Your task to perform on an android device: Look up the best rated book on Goodreads Image 0: 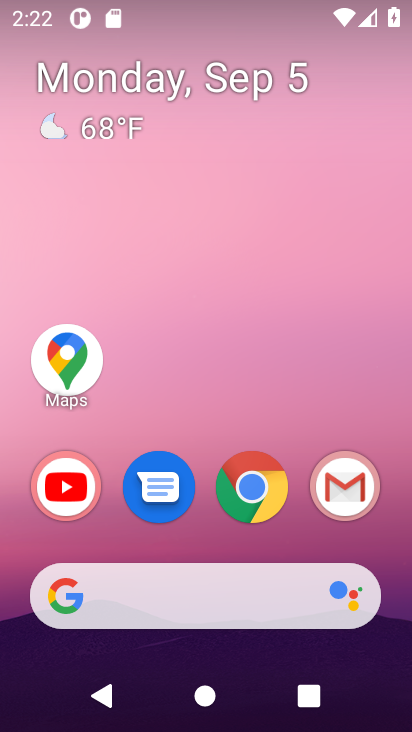
Step 0: click (240, 472)
Your task to perform on an android device: Look up the best rated book on Goodreads Image 1: 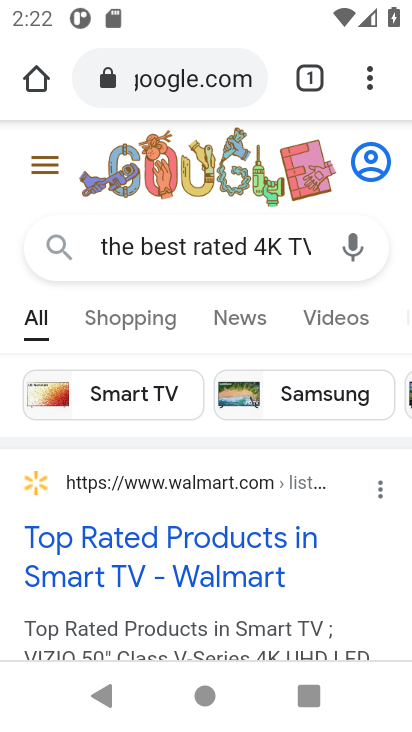
Step 1: click (142, 80)
Your task to perform on an android device: Look up the best rated book on Goodreads Image 2: 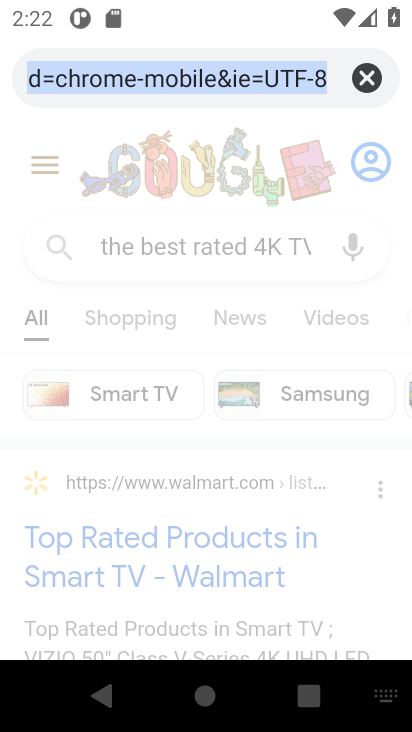
Step 2: click (374, 81)
Your task to perform on an android device: Look up the best rated book on Goodreads Image 3: 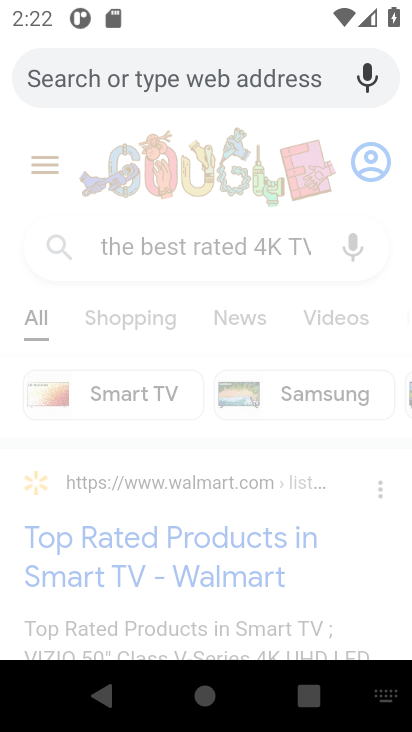
Step 3: type "the best rated book on Goodreads"
Your task to perform on an android device: Look up the best rated book on Goodreads Image 4: 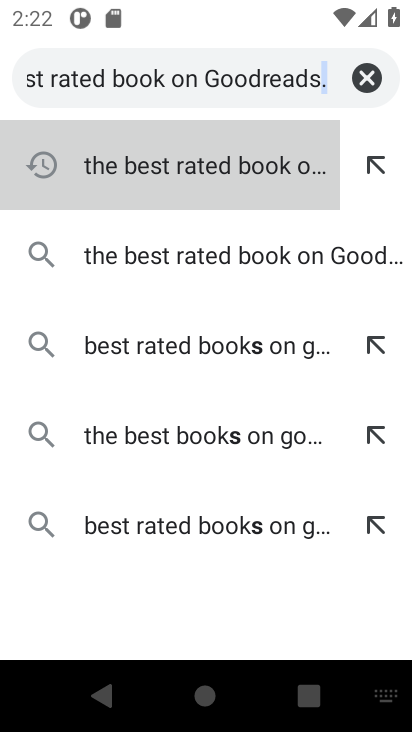
Step 4: click (271, 166)
Your task to perform on an android device: Look up the best rated book on Goodreads Image 5: 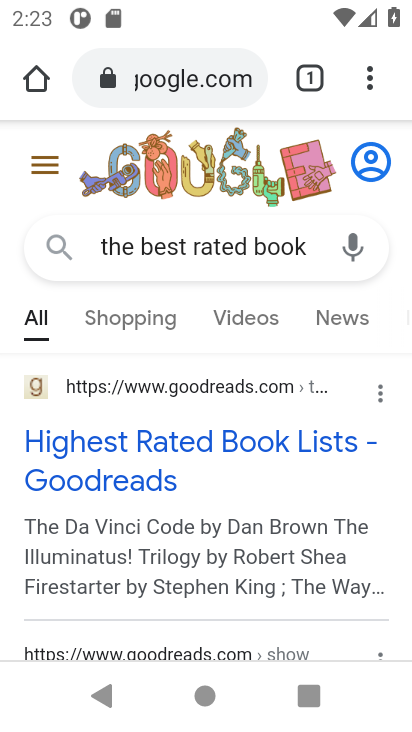
Step 5: task complete